Your task to perform on an android device: turn off notifications in google photos Image 0: 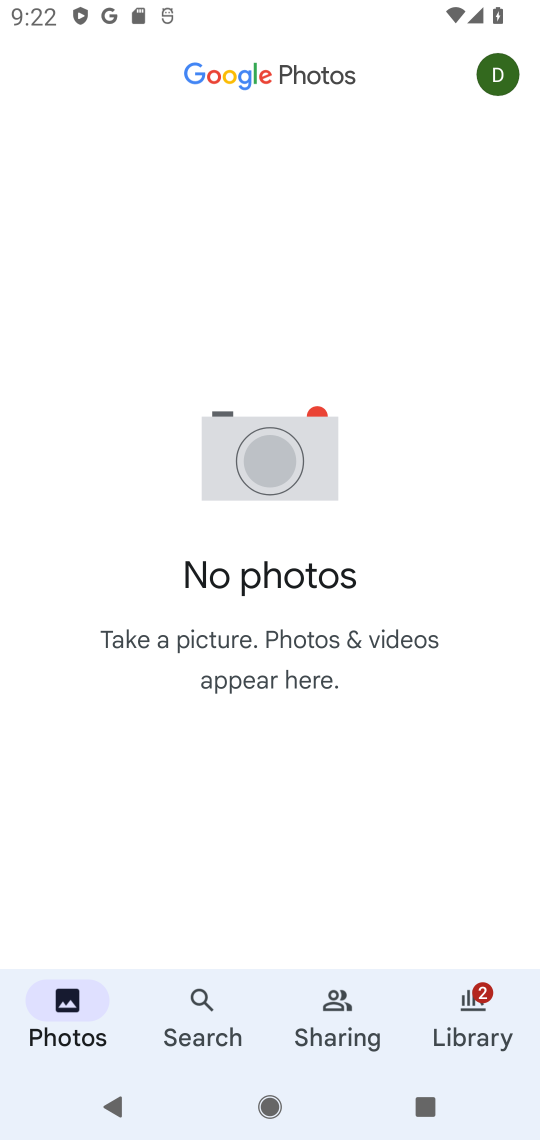
Step 0: press home button
Your task to perform on an android device: turn off notifications in google photos Image 1: 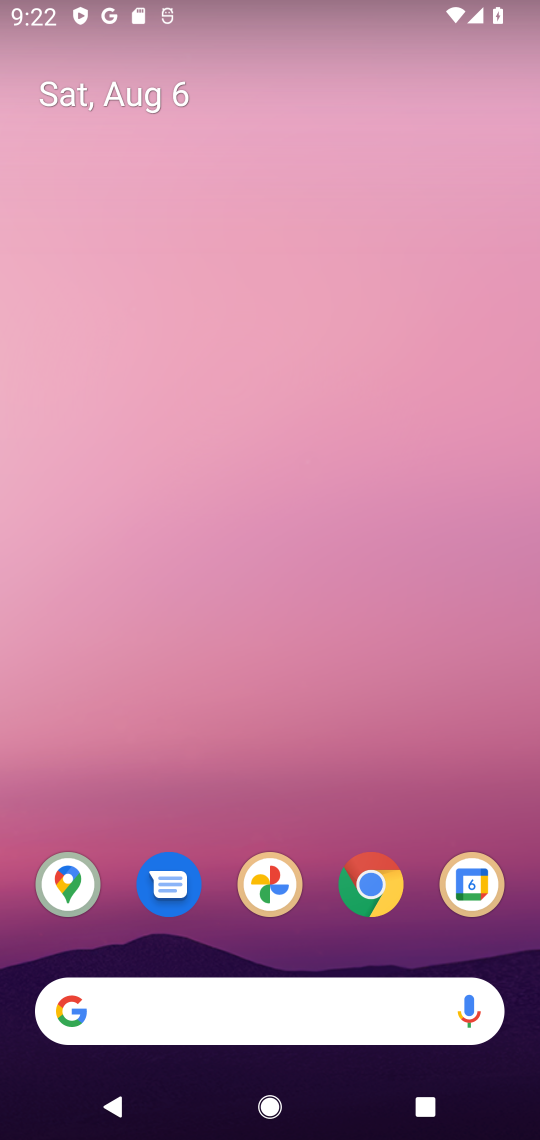
Step 1: click (273, 878)
Your task to perform on an android device: turn off notifications in google photos Image 2: 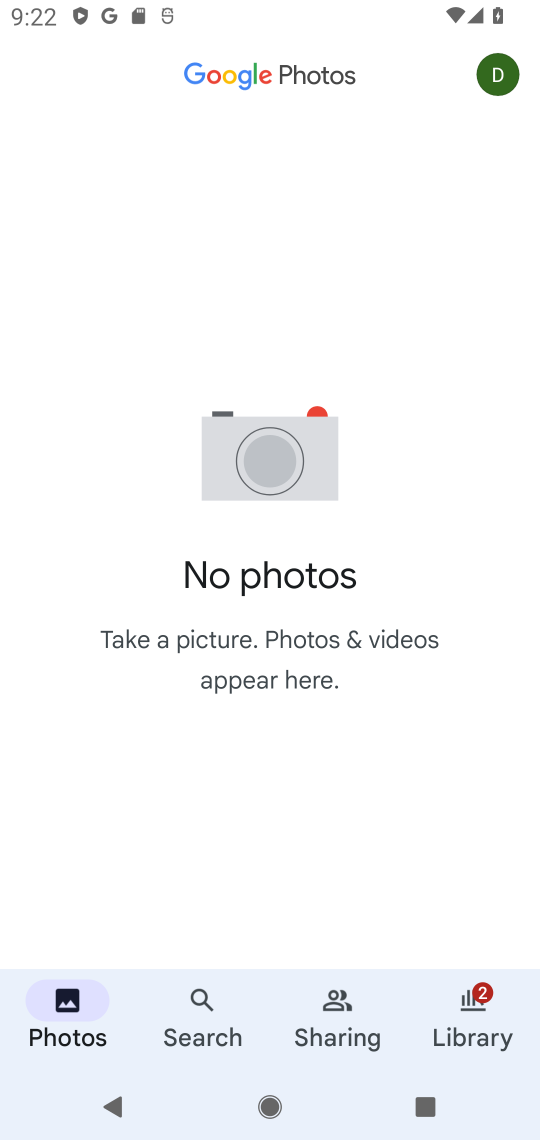
Step 2: click (493, 72)
Your task to perform on an android device: turn off notifications in google photos Image 3: 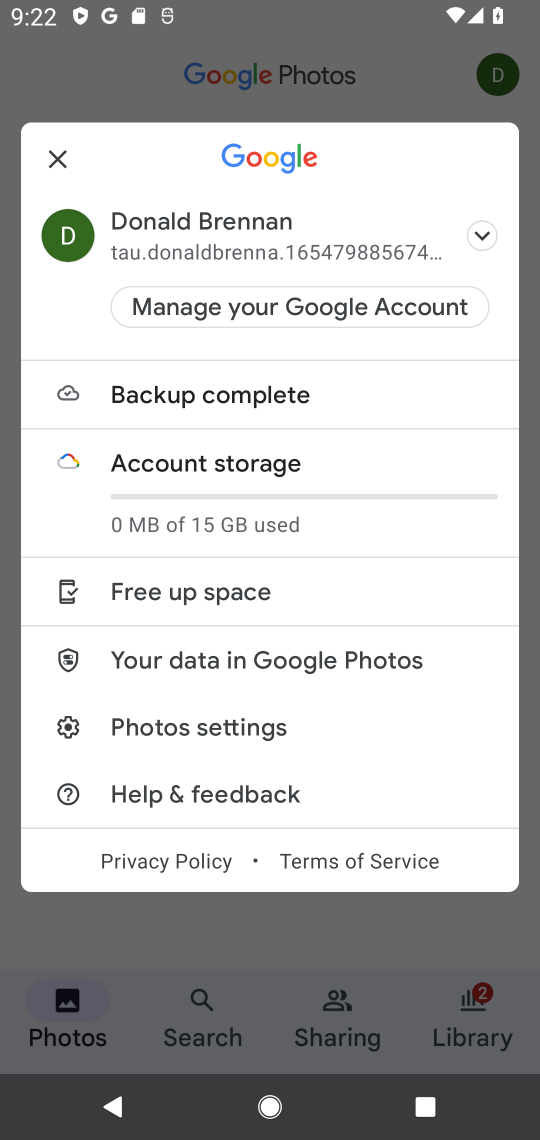
Step 3: click (163, 730)
Your task to perform on an android device: turn off notifications in google photos Image 4: 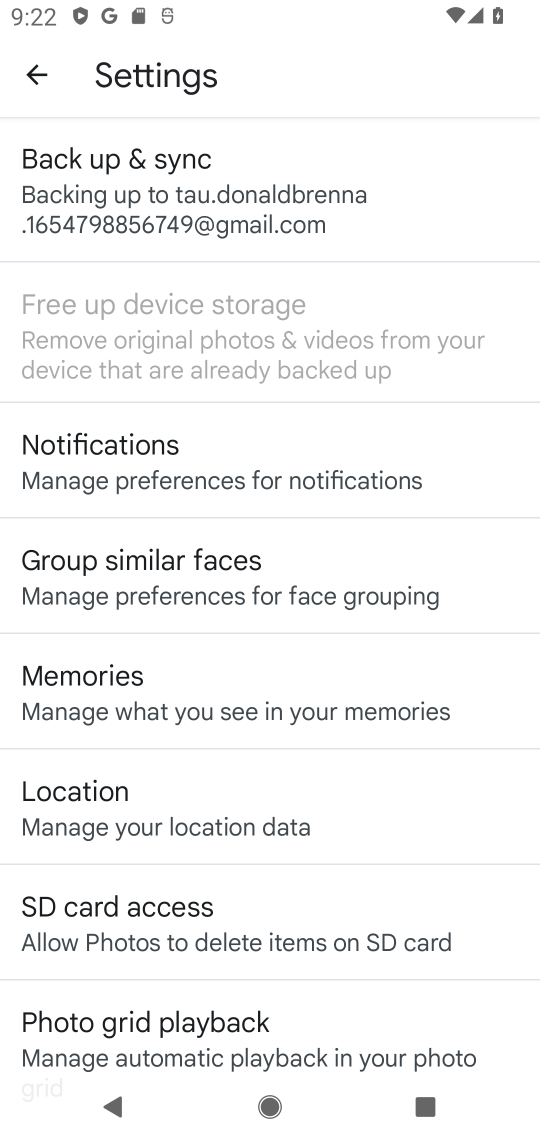
Step 4: click (119, 451)
Your task to perform on an android device: turn off notifications in google photos Image 5: 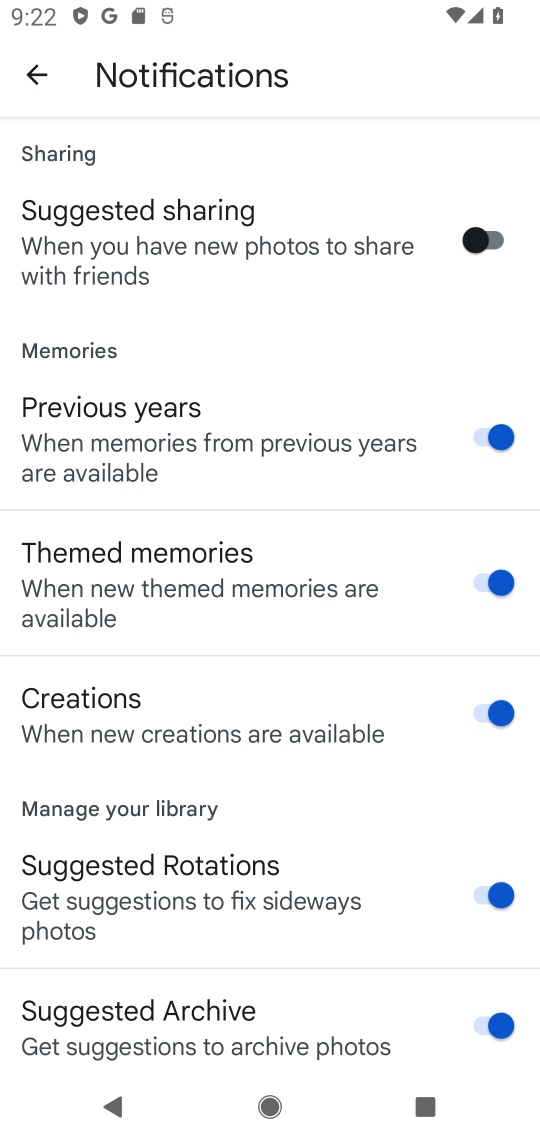
Step 5: drag from (252, 821) to (235, 324)
Your task to perform on an android device: turn off notifications in google photos Image 6: 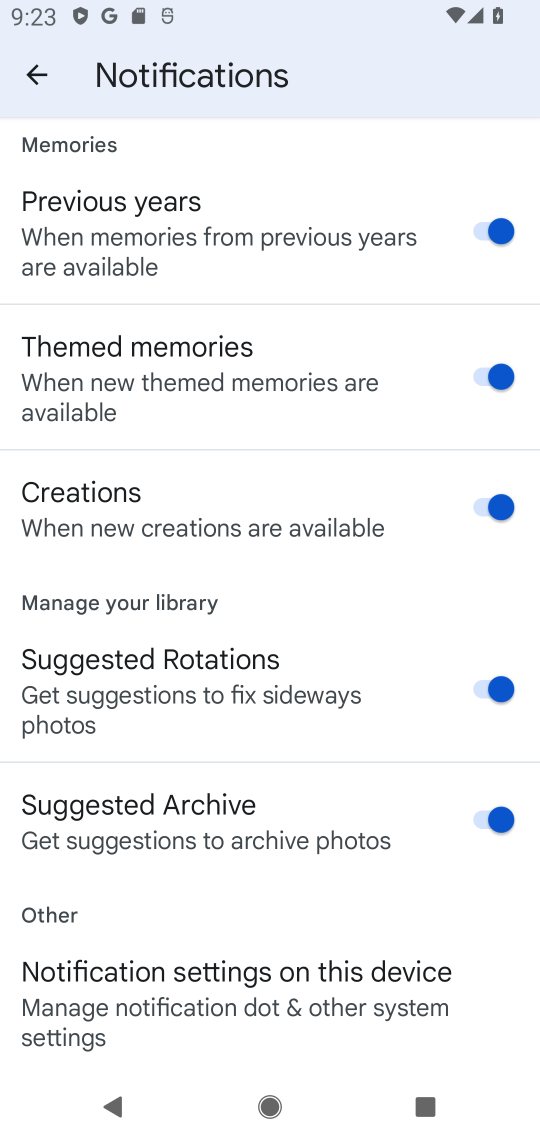
Step 6: drag from (338, 933) to (329, 397)
Your task to perform on an android device: turn off notifications in google photos Image 7: 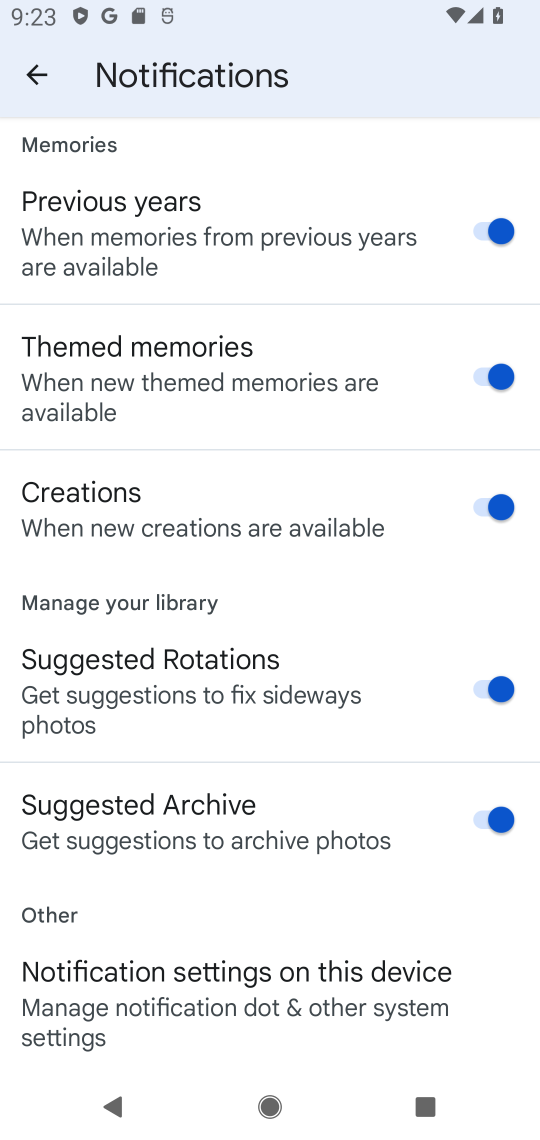
Step 7: drag from (329, 397) to (304, 200)
Your task to perform on an android device: turn off notifications in google photos Image 8: 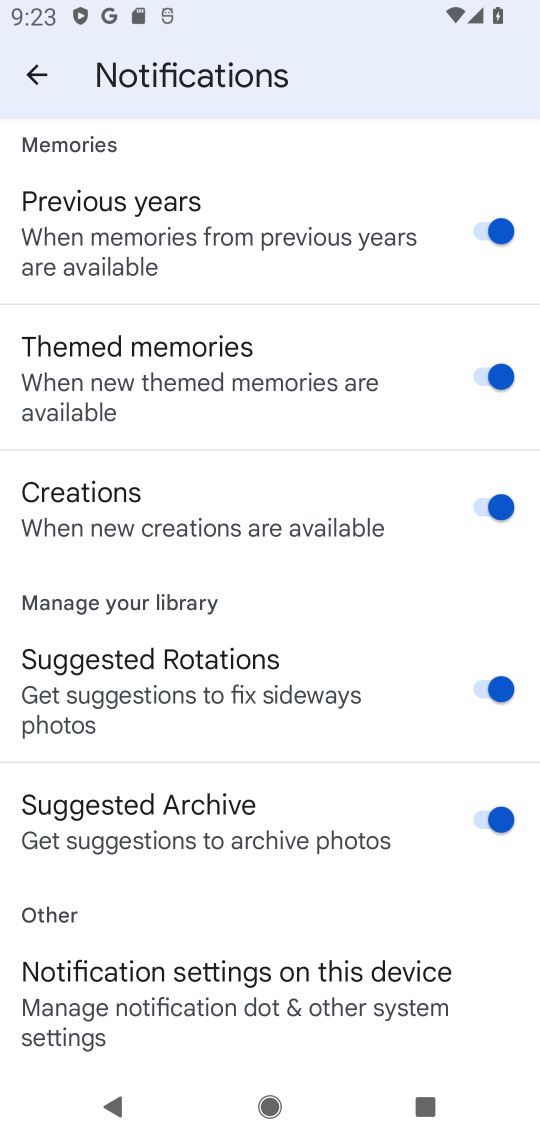
Step 8: click (171, 981)
Your task to perform on an android device: turn off notifications in google photos Image 9: 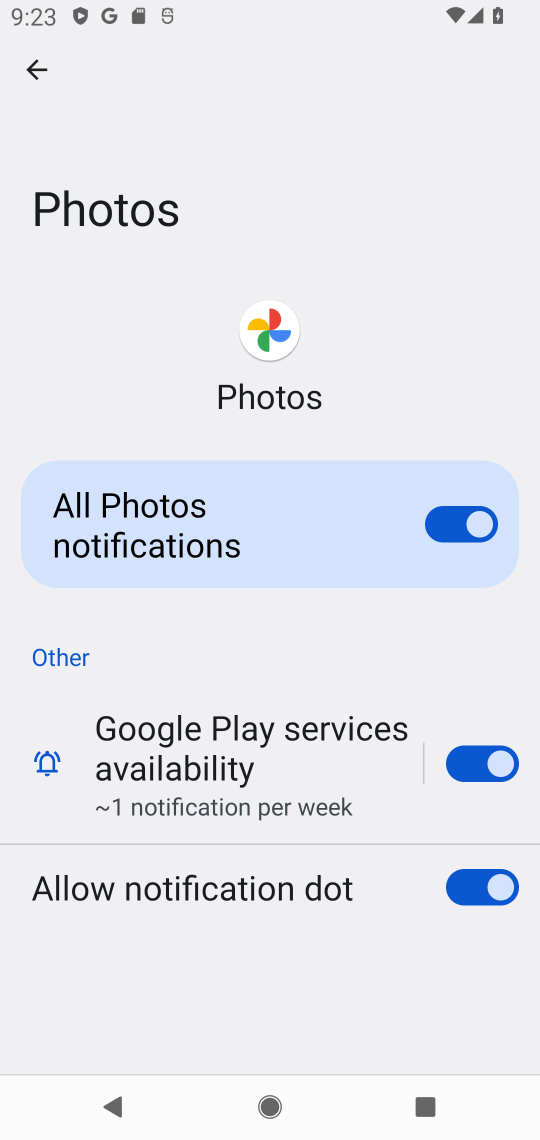
Step 9: click (446, 519)
Your task to perform on an android device: turn off notifications in google photos Image 10: 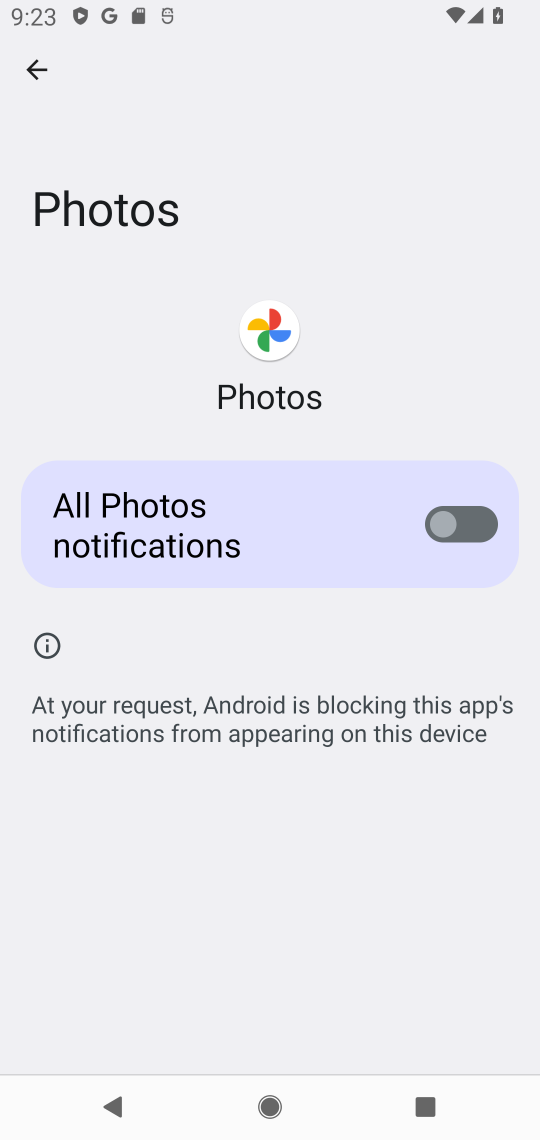
Step 10: task complete